Your task to perform on an android device: turn off priority inbox in the gmail app Image 0: 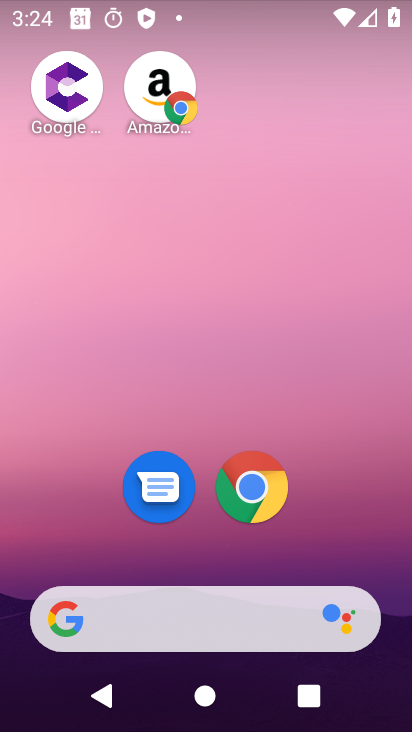
Step 0: drag from (343, 584) to (327, 38)
Your task to perform on an android device: turn off priority inbox in the gmail app Image 1: 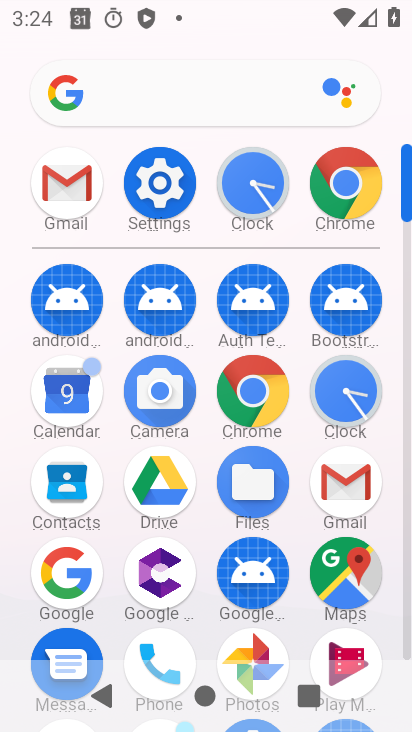
Step 1: click (338, 498)
Your task to perform on an android device: turn off priority inbox in the gmail app Image 2: 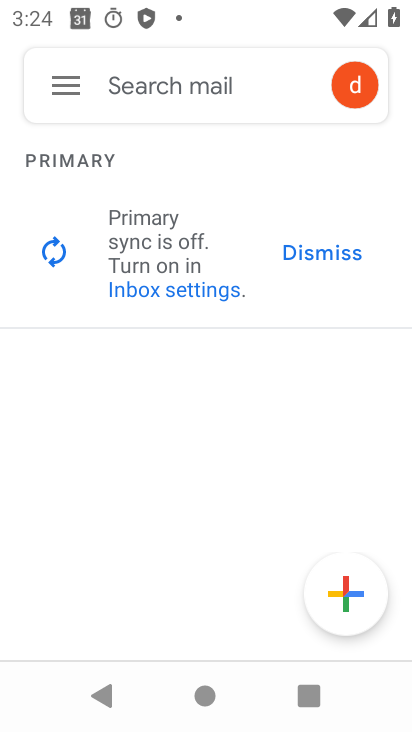
Step 2: click (79, 70)
Your task to perform on an android device: turn off priority inbox in the gmail app Image 3: 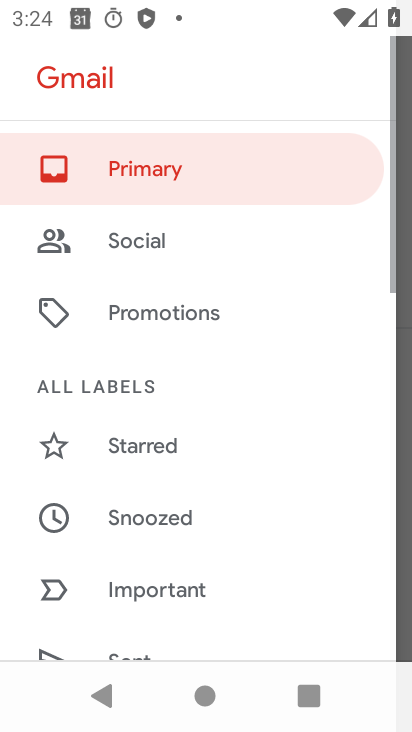
Step 3: drag from (228, 531) to (251, 3)
Your task to perform on an android device: turn off priority inbox in the gmail app Image 4: 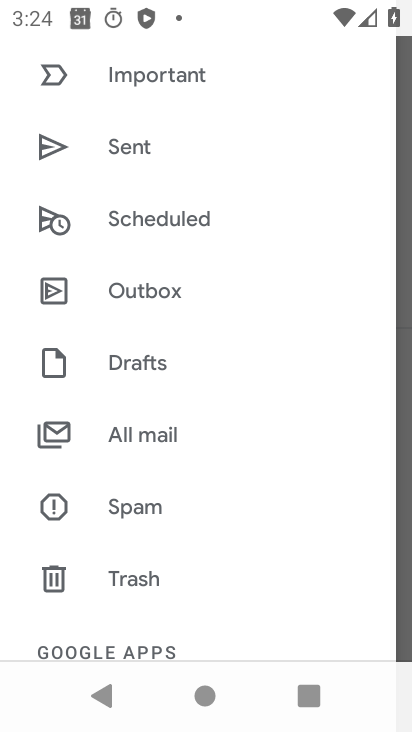
Step 4: drag from (218, 612) to (290, 132)
Your task to perform on an android device: turn off priority inbox in the gmail app Image 5: 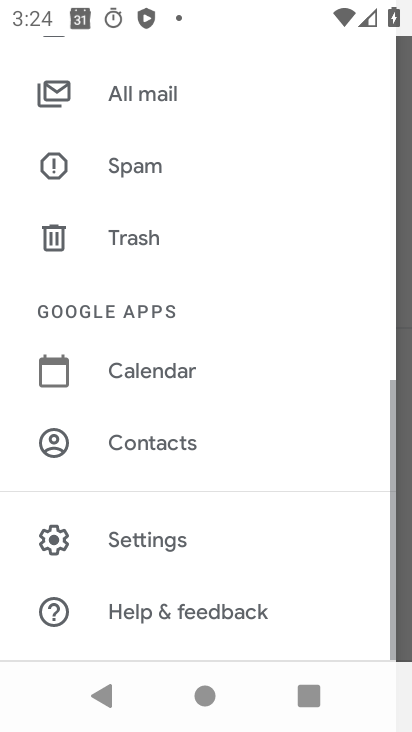
Step 5: click (178, 534)
Your task to perform on an android device: turn off priority inbox in the gmail app Image 6: 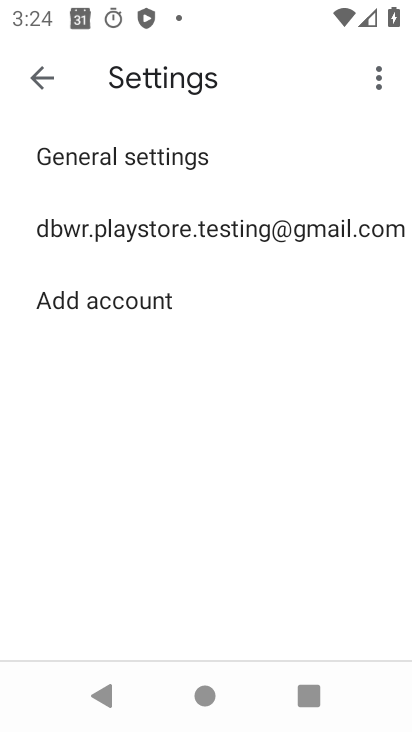
Step 6: click (161, 222)
Your task to perform on an android device: turn off priority inbox in the gmail app Image 7: 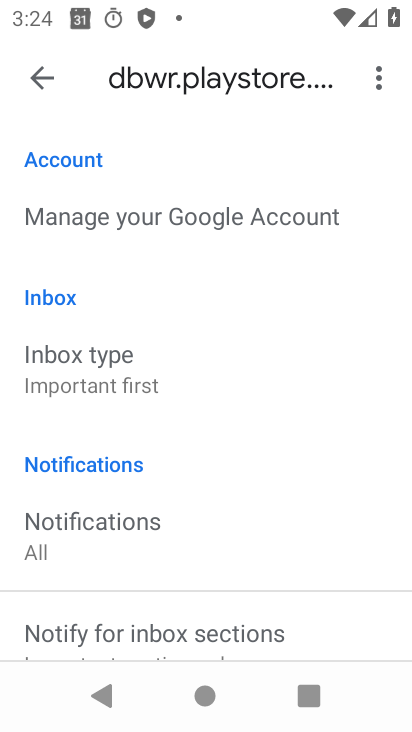
Step 7: click (131, 377)
Your task to perform on an android device: turn off priority inbox in the gmail app Image 8: 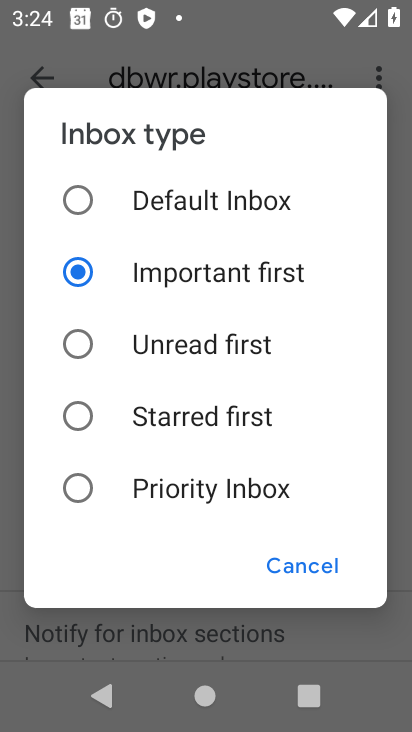
Step 8: click (68, 486)
Your task to perform on an android device: turn off priority inbox in the gmail app Image 9: 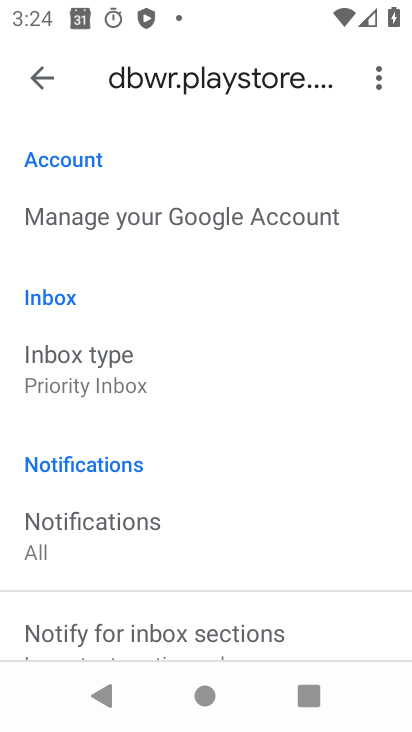
Step 9: click (116, 368)
Your task to perform on an android device: turn off priority inbox in the gmail app Image 10: 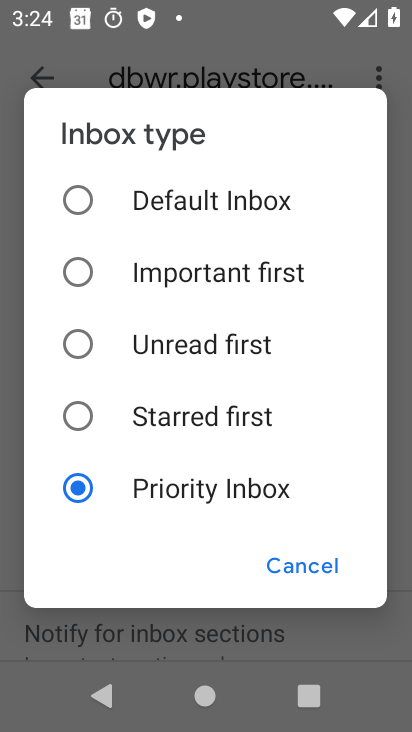
Step 10: click (97, 251)
Your task to perform on an android device: turn off priority inbox in the gmail app Image 11: 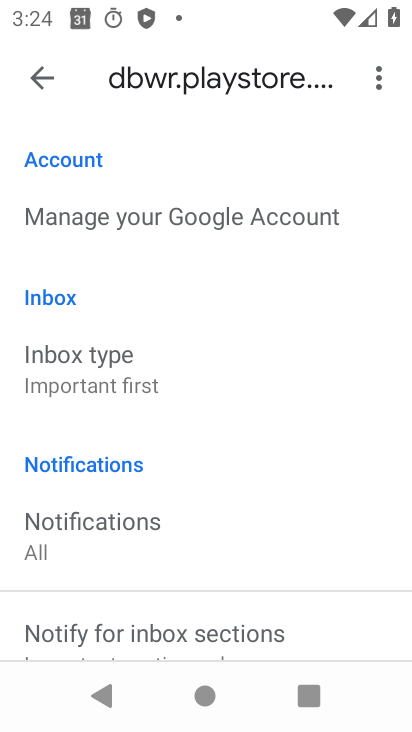
Step 11: task complete